Your task to perform on an android device: allow notifications from all sites in the chrome app Image 0: 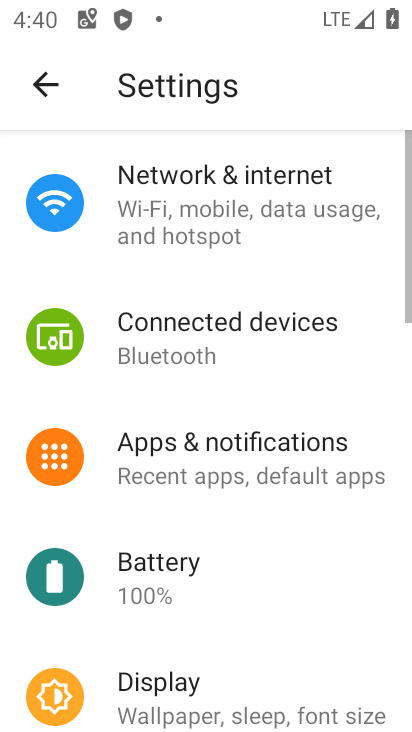
Step 0: press home button
Your task to perform on an android device: allow notifications from all sites in the chrome app Image 1: 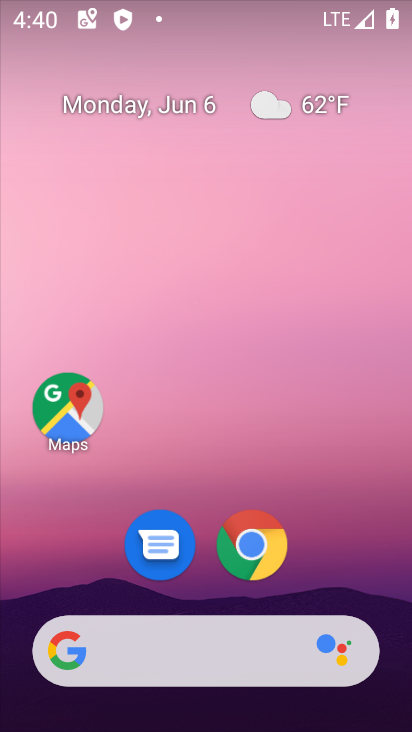
Step 1: click (262, 549)
Your task to perform on an android device: allow notifications from all sites in the chrome app Image 2: 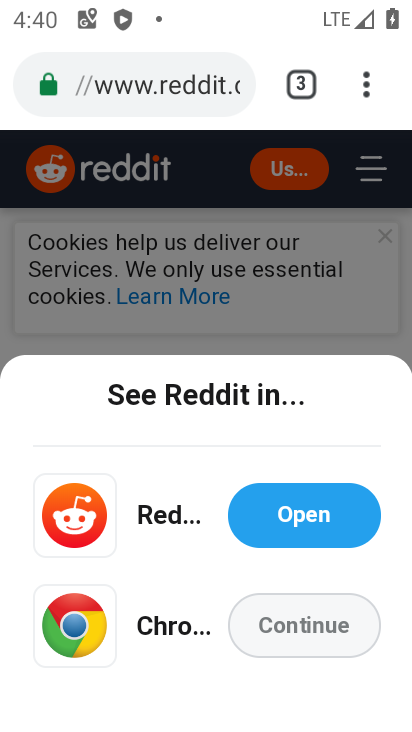
Step 2: click (368, 90)
Your task to perform on an android device: allow notifications from all sites in the chrome app Image 3: 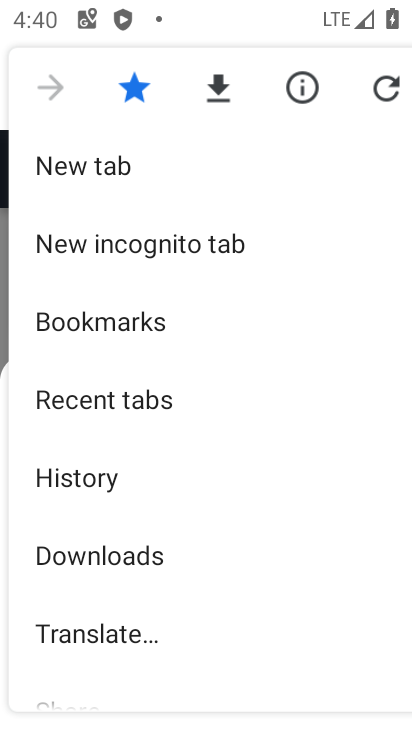
Step 3: drag from (78, 666) to (91, 236)
Your task to perform on an android device: allow notifications from all sites in the chrome app Image 4: 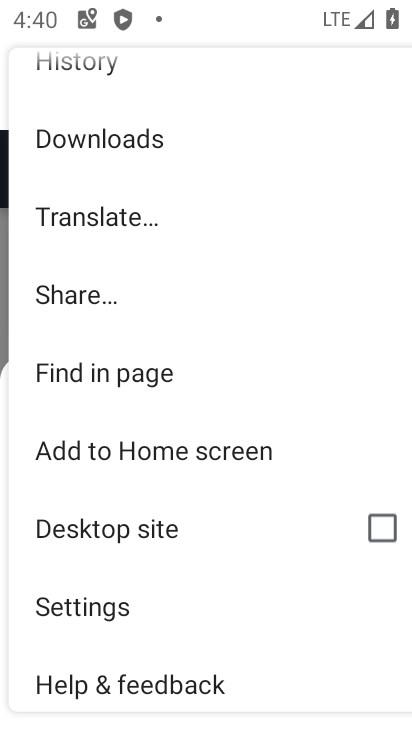
Step 4: click (86, 605)
Your task to perform on an android device: allow notifications from all sites in the chrome app Image 5: 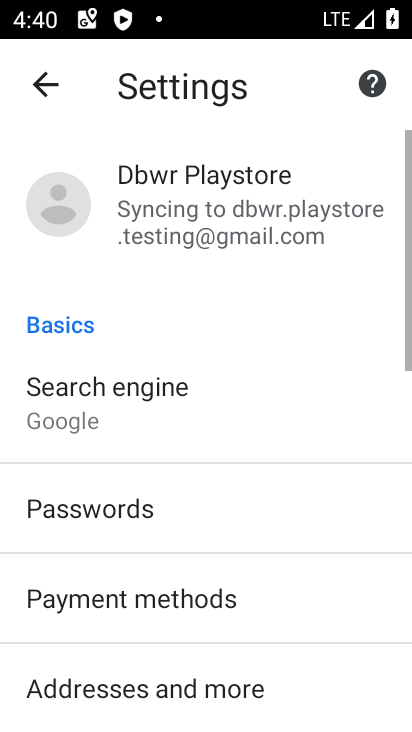
Step 5: drag from (110, 707) to (100, 391)
Your task to perform on an android device: allow notifications from all sites in the chrome app Image 6: 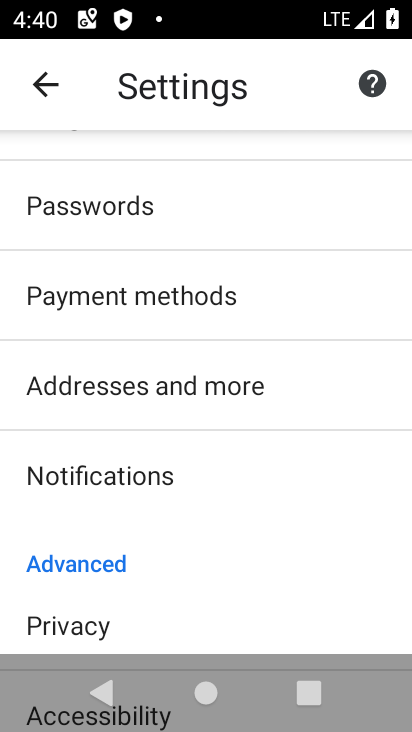
Step 6: drag from (138, 629) to (139, 240)
Your task to perform on an android device: allow notifications from all sites in the chrome app Image 7: 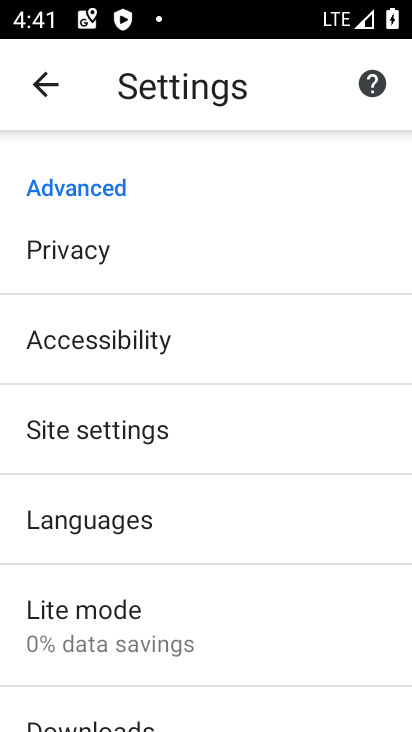
Step 7: drag from (137, 703) to (129, 479)
Your task to perform on an android device: allow notifications from all sites in the chrome app Image 8: 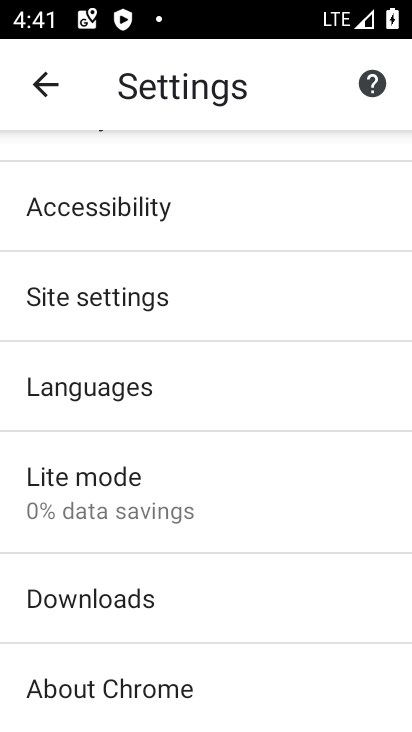
Step 8: click (119, 299)
Your task to perform on an android device: allow notifications from all sites in the chrome app Image 9: 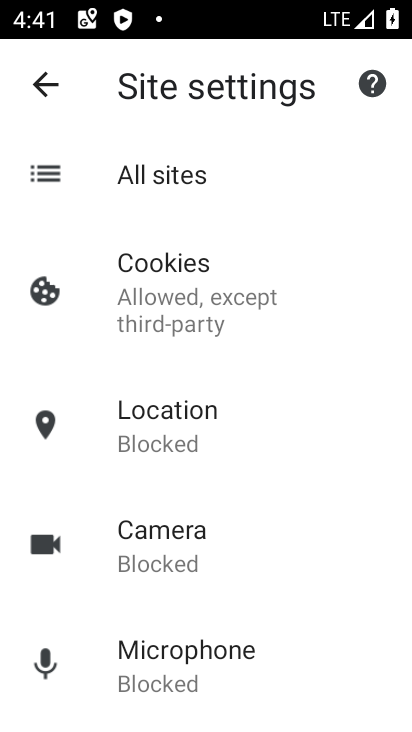
Step 9: drag from (167, 700) to (153, 460)
Your task to perform on an android device: allow notifications from all sites in the chrome app Image 10: 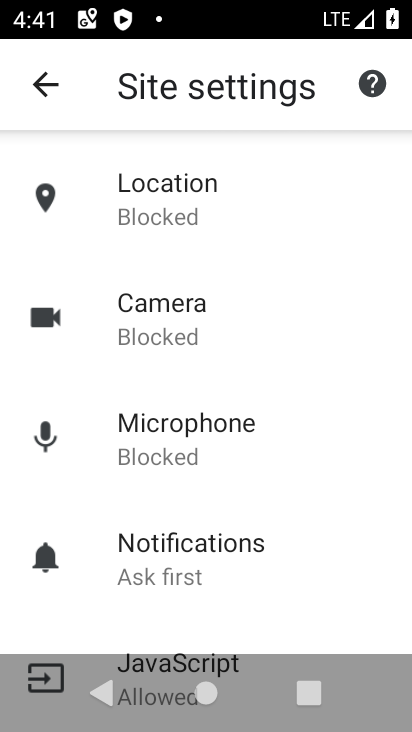
Step 10: click (189, 549)
Your task to perform on an android device: allow notifications from all sites in the chrome app Image 11: 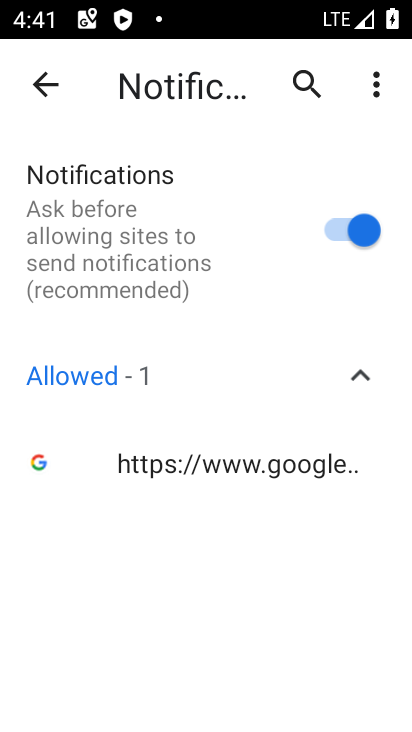
Step 11: task complete